Your task to perform on an android device: Open notification settings Image 0: 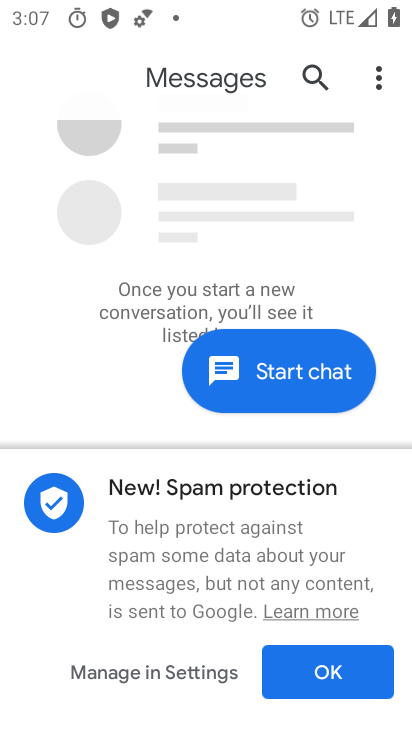
Step 0: press home button
Your task to perform on an android device: Open notification settings Image 1: 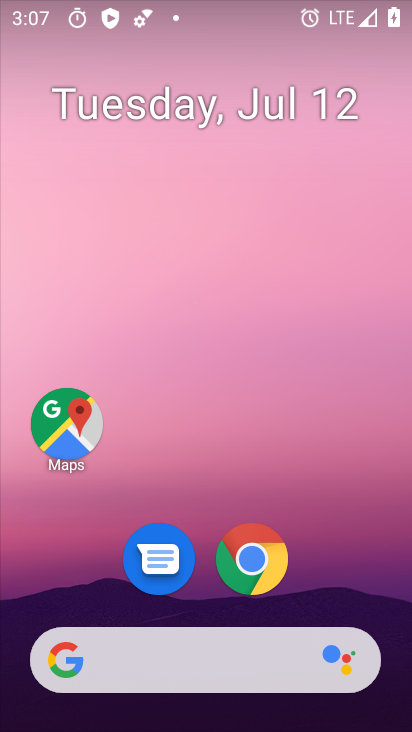
Step 1: drag from (343, 571) to (371, 220)
Your task to perform on an android device: Open notification settings Image 2: 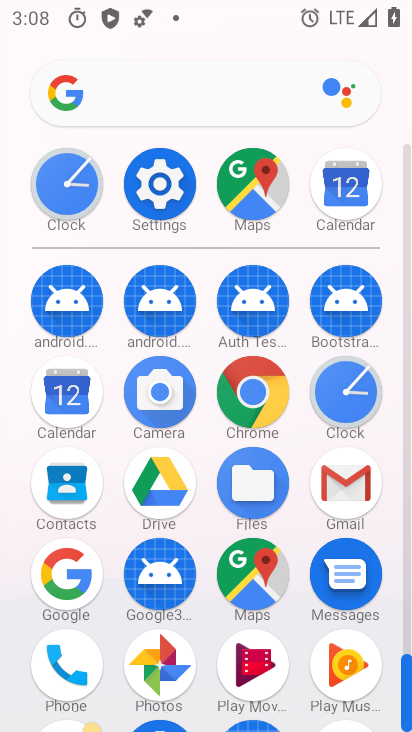
Step 2: click (162, 176)
Your task to perform on an android device: Open notification settings Image 3: 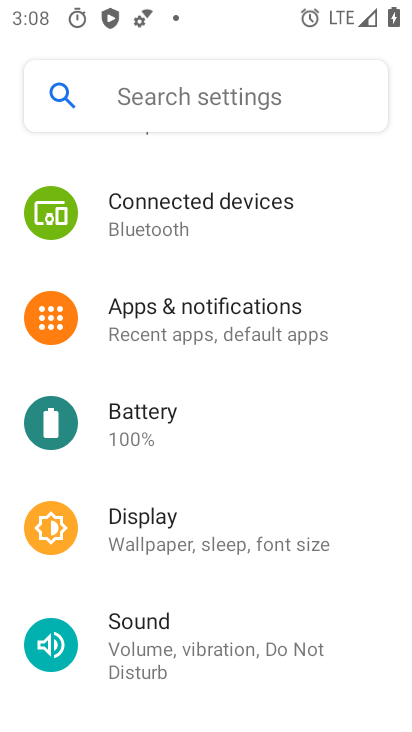
Step 3: drag from (356, 522) to (362, 413)
Your task to perform on an android device: Open notification settings Image 4: 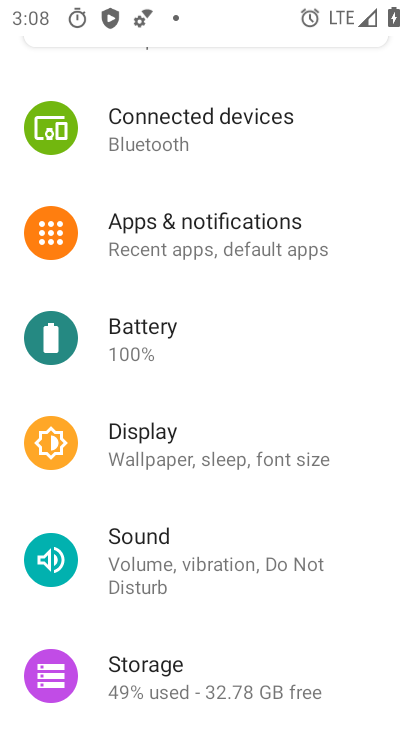
Step 4: drag from (362, 561) to (372, 402)
Your task to perform on an android device: Open notification settings Image 5: 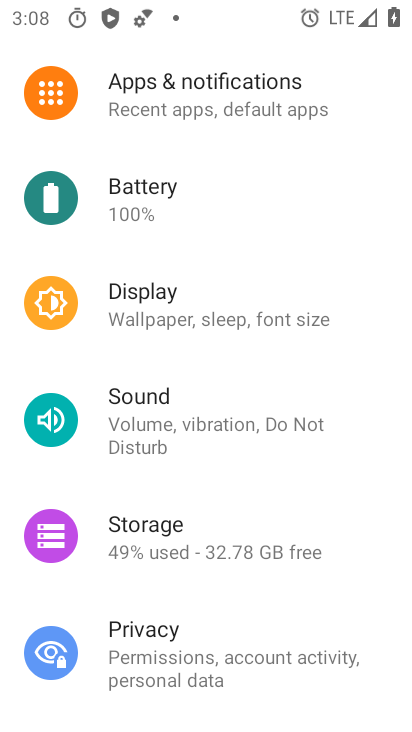
Step 5: drag from (362, 505) to (369, 394)
Your task to perform on an android device: Open notification settings Image 6: 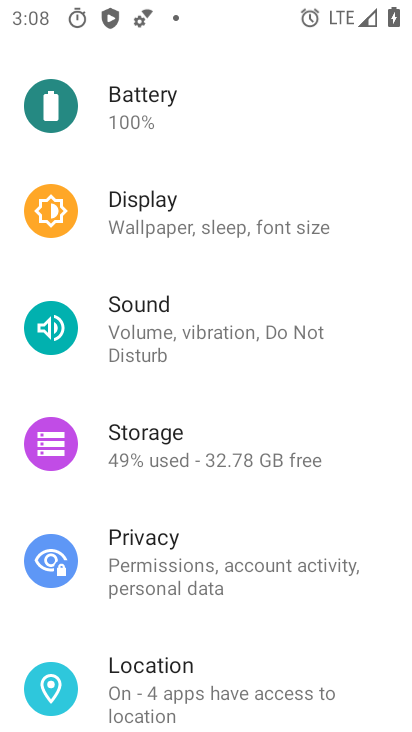
Step 6: drag from (377, 535) to (359, 371)
Your task to perform on an android device: Open notification settings Image 7: 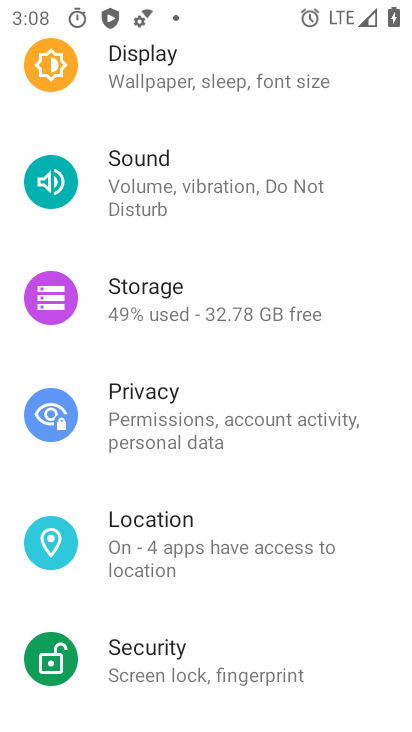
Step 7: drag from (358, 516) to (351, 381)
Your task to perform on an android device: Open notification settings Image 8: 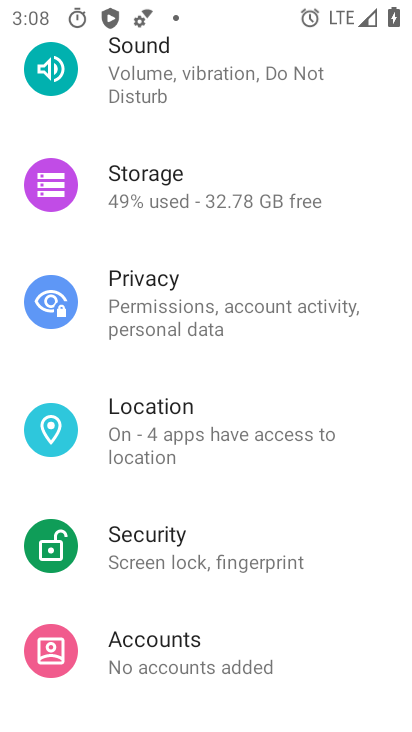
Step 8: drag from (350, 552) to (351, 403)
Your task to perform on an android device: Open notification settings Image 9: 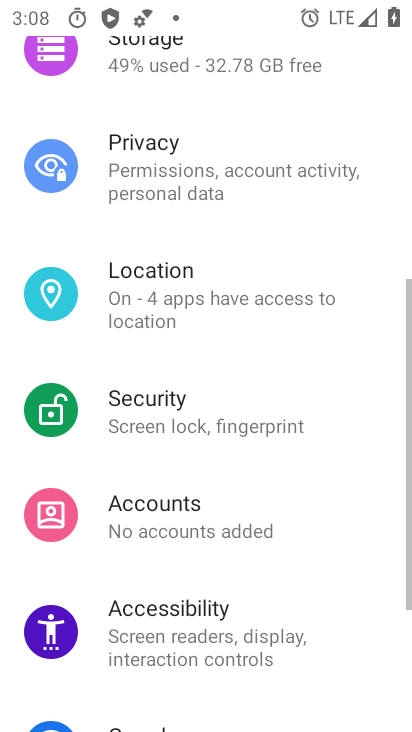
Step 9: drag from (358, 343) to (362, 455)
Your task to perform on an android device: Open notification settings Image 10: 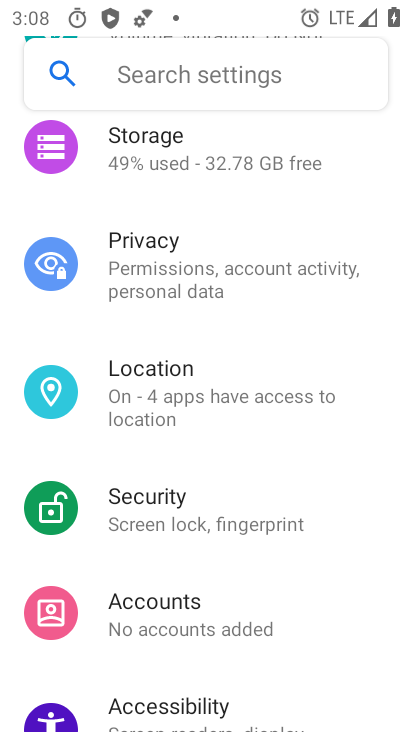
Step 10: drag from (368, 329) to (361, 497)
Your task to perform on an android device: Open notification settings Image 11: 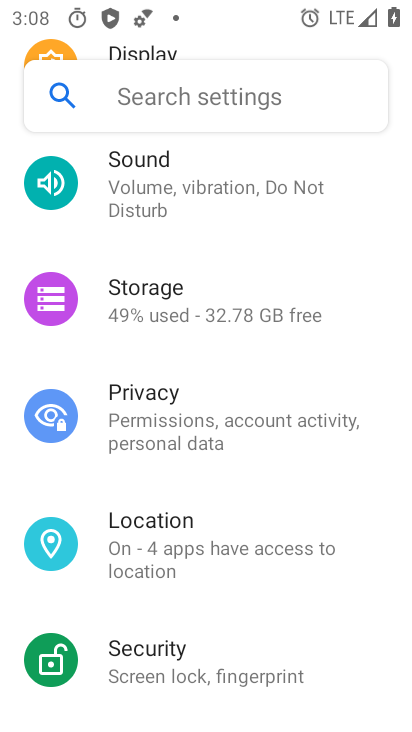
Step 11: drag from (359, 275) to (358, 416)
Your task to perform on an android device: Open notification settings Image 12: 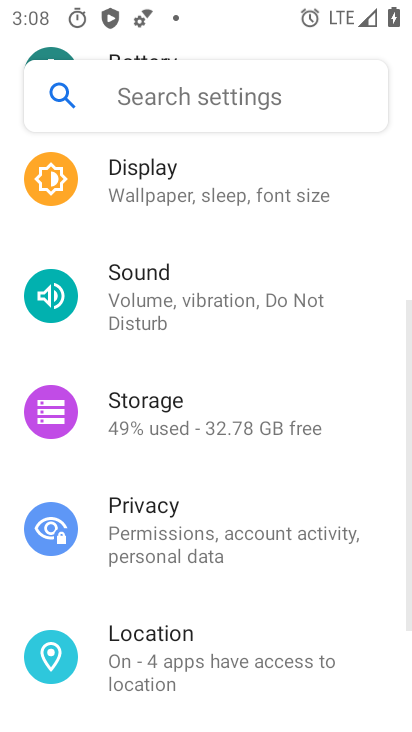
Step 12: drag from (359, 295) to (360, 401)
Your task to perform on an android device: Open notification settings Image 13: 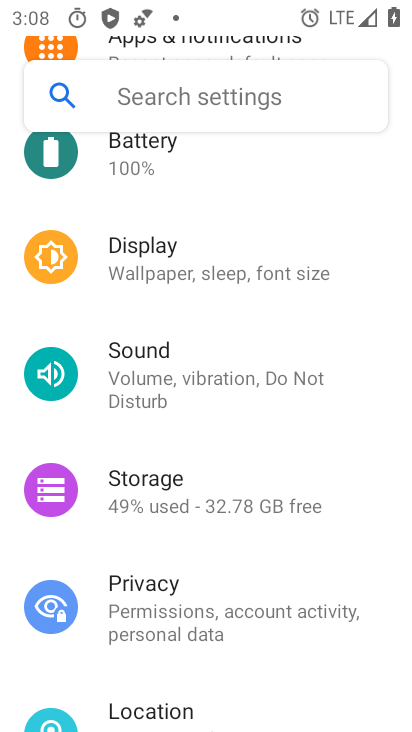
Step 13: drag from (362, 249) to (363, 399)
Your task to perform on an android device: Open notification settings Image 14: 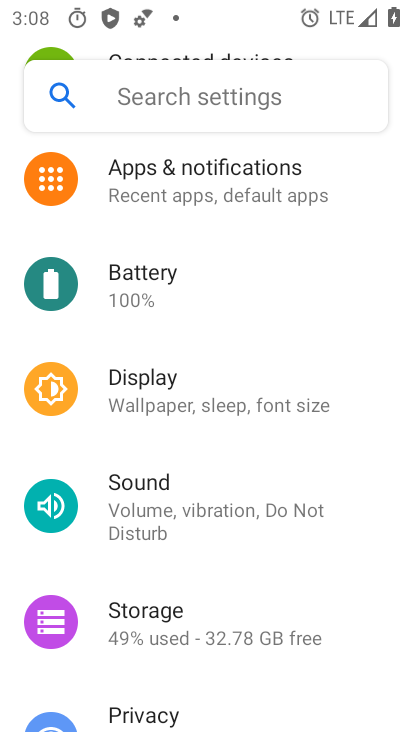
Step 14: drag from (364, 206) to (369, 404)
Your task to perform on an android device: Open notification settings Image 15: 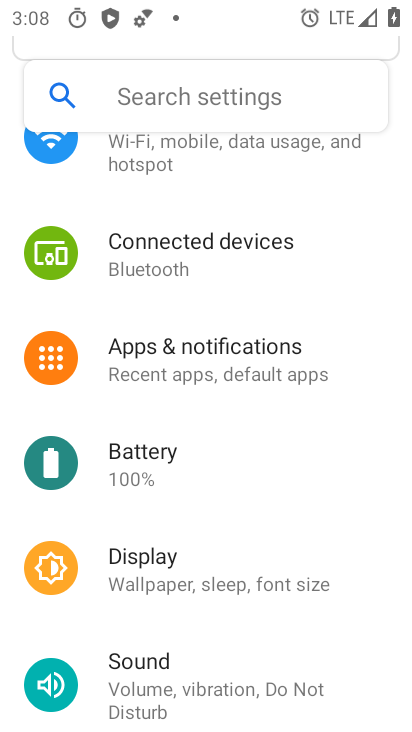
Step 15: click (289, 350)
Your task to perform on an android device: Open notification settings Image 16: 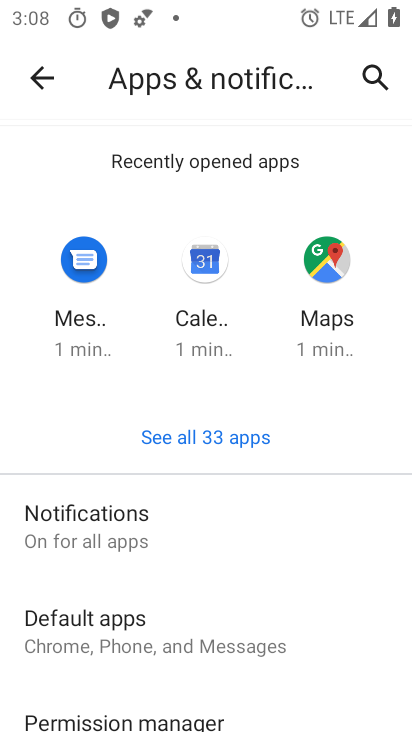
Step 16: click (184, 539)
Your task to perform on an android device: Open notification settings Image 17: 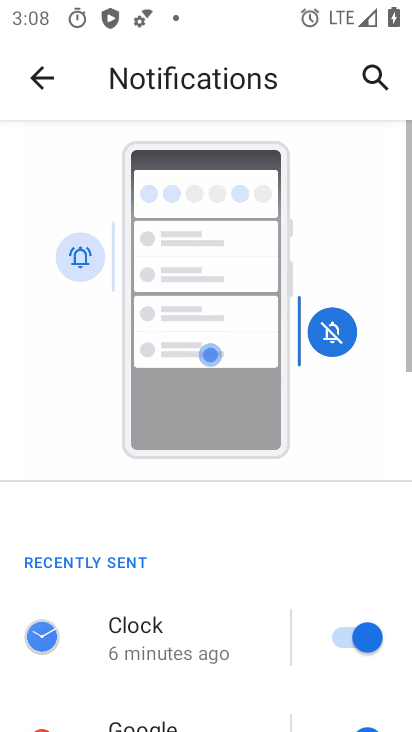
Step 17: task complete